Your task to perform on an android device: Open calendar and show me the second week of next month Image 0: 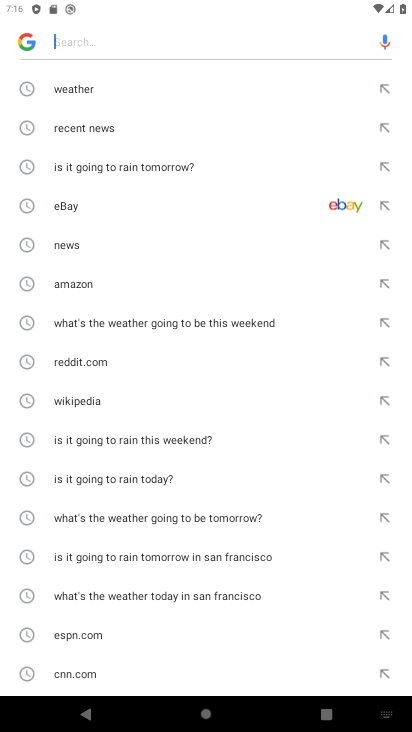
Step 0: press home button
Your task to perform on an android device: Open calendar and show me the second week of next month Image 1: 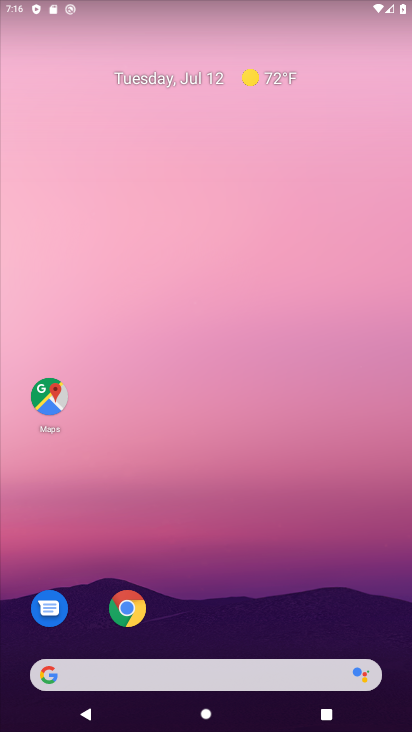
Step 1: drag from (215, 489) to (158, 77)
Your task to perform on an android device: Open calendar and show me the second week of next month Image 2: 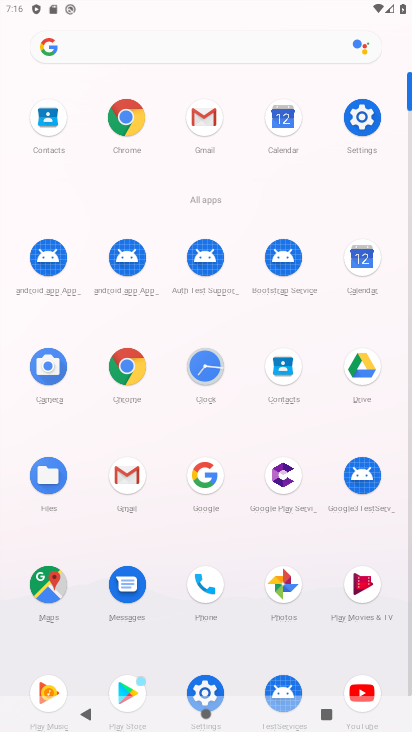
Step 2: click (354, 266)
Your task to perform on an android device: Open calendar and show me the second week of next month Image 3: 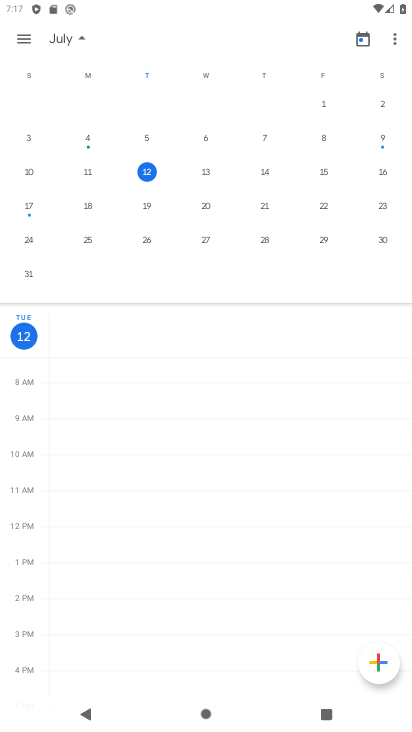
Step 3: click (18, 37)
Your task to perform on an android device: Open calendar and show me the second week of next month Image 4: 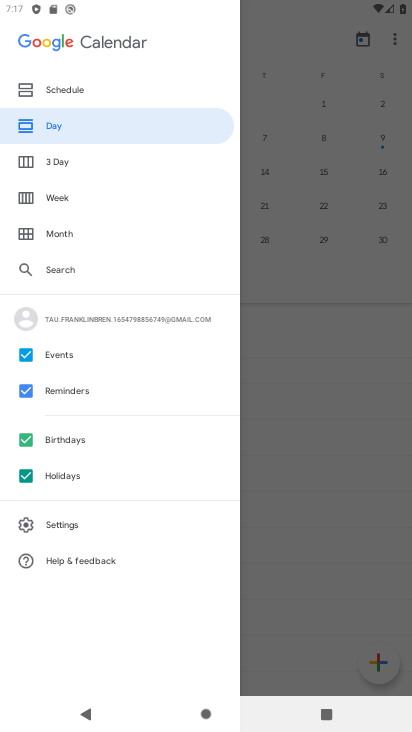
Step 4: click (61, 194)
Your task to perform on an android device: Open calendar and show me the second week of next month Image 5: 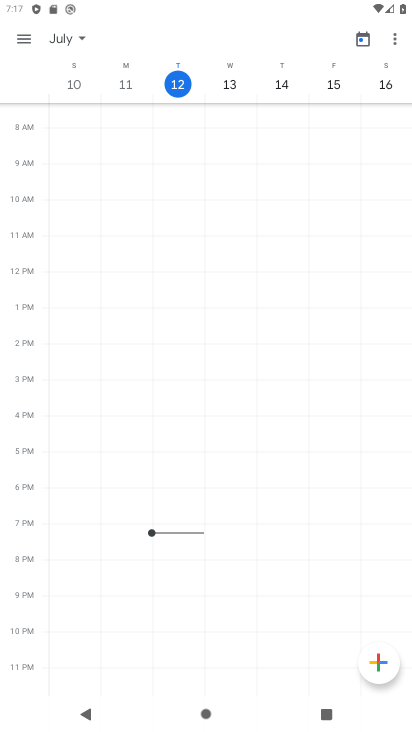
Step 5: click (80, 33)
Your task to perform on an android device: Open calendar and show me the second week of next month Image 6: 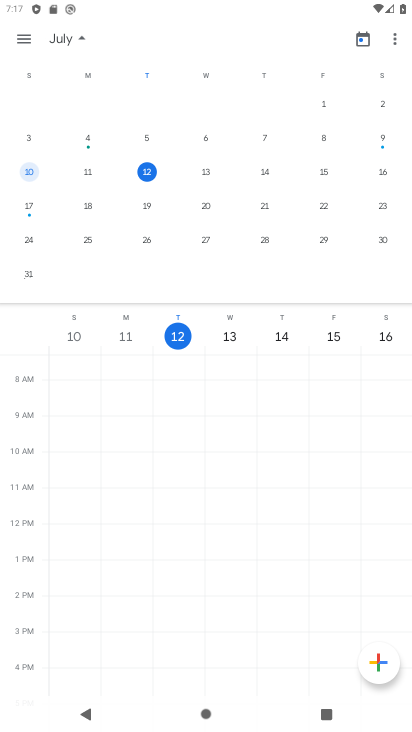
Step 6: drag from (370, 168) to (7, 119)
Your task to perform on an android device: Open calendar and show me the second week of next month Image 7: 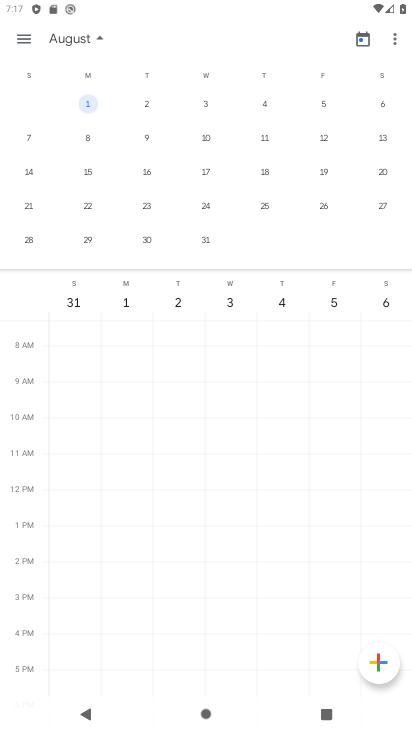
Step 7: click (144, 140)
Your task to perform on an android device: Open calendar and show me the second week of next month Image 8: 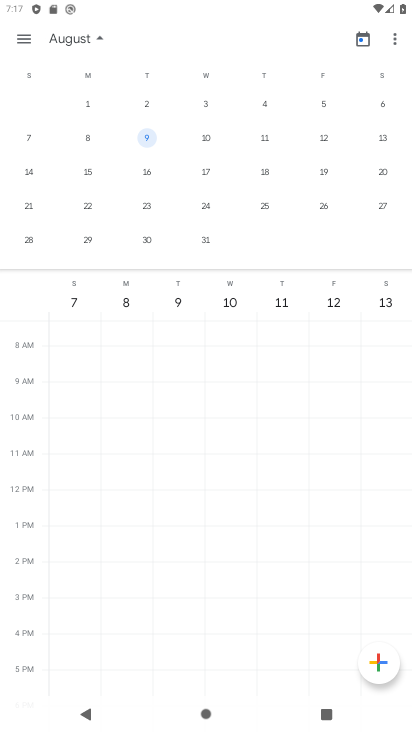
Step 8: task complete